Your task to perform on an android device: open a bookmark in the chrome app Image 0: 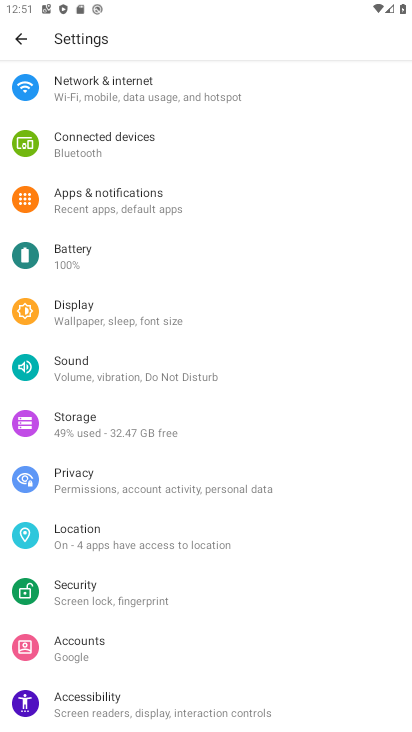
Step 0: press home button
Your task to perform on an android device: open a bookmark in the chrome app Image 1: 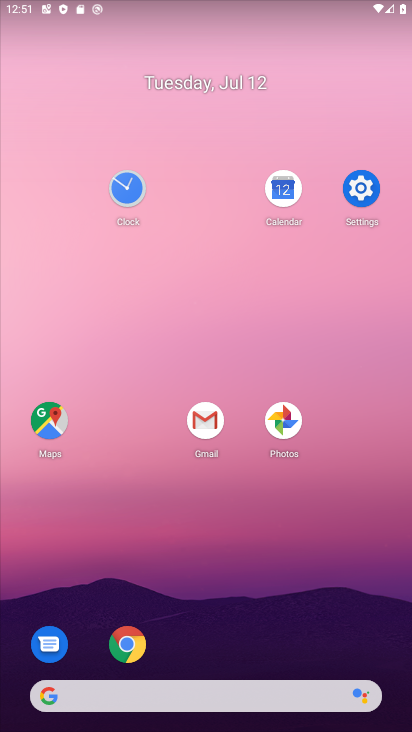
Step 1: click (116, 643)
Your task to perform on an android device: open a bookmark in the chrome app Image 2: 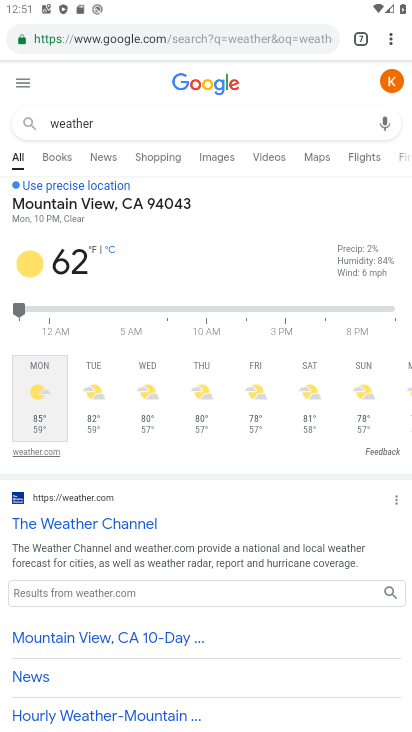
Step 2: click (385, 56)
Your task to perform on an android device: open a bookmark in the chrome app Image 3: 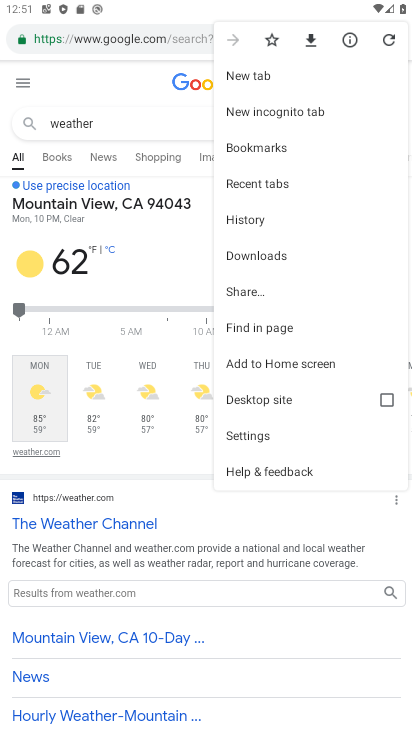
Step 3: click (283, 147)
Your task to perform on an android device: open a bookmark in the chrome app Image 4: 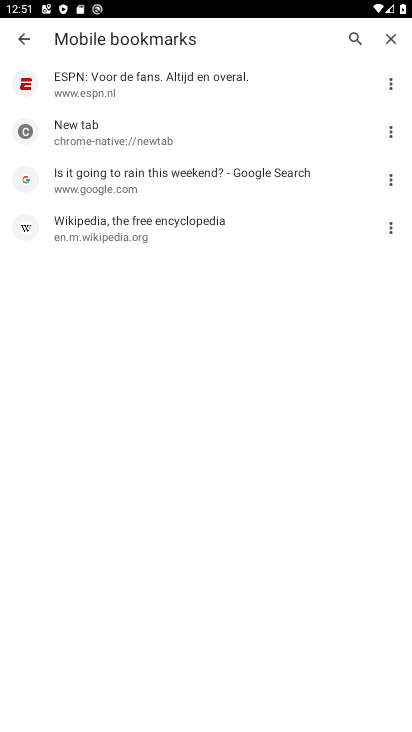
Step 4: task complete